Your task to perform on an android device: manage bookmarks in the chrome app Image 0: 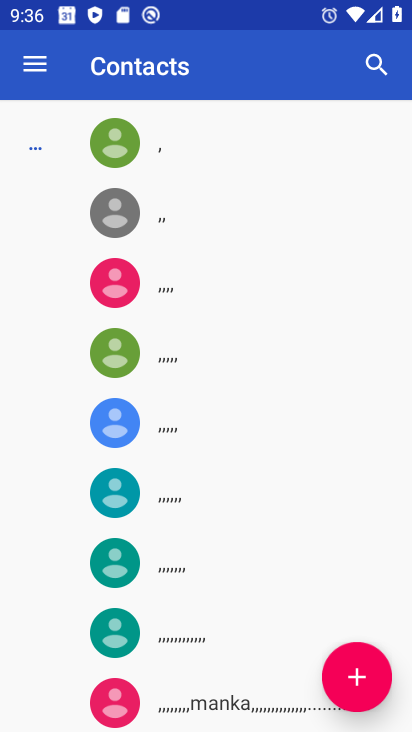
Step 0: press home button
Your task to perform on an android device: manage bookmarks in the chrome app Image 1: 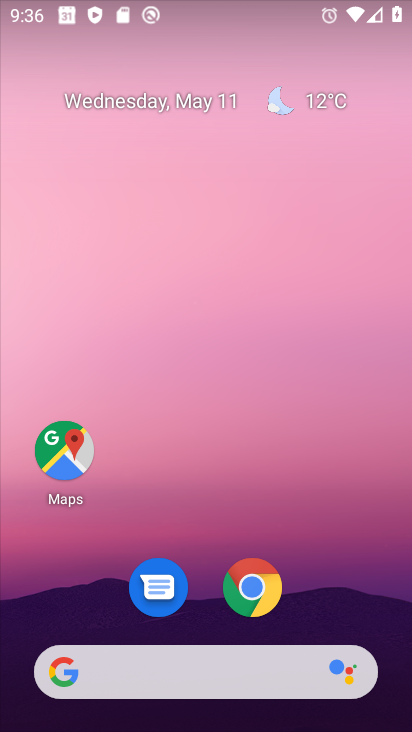
Step 1: click (258, 595)
Your task to perform on an android device: manage bookmarks in the chrome app Image 2: 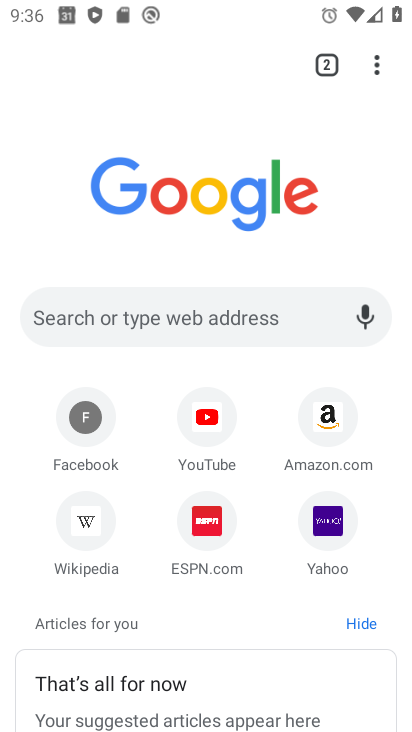
Step 2: drag from (379, 63) to (126, 263)
Your task to perform on an android device: manage bookmarks in the chrome app Image 3: 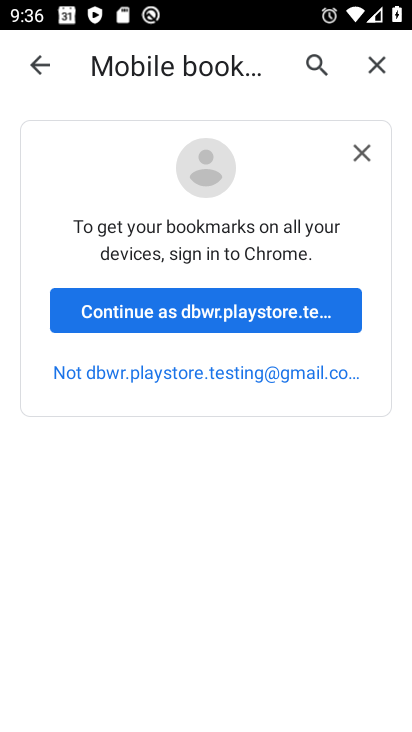
Step 3: click (141, 325)
Your task to perform on an android device: manage bookmarks in the chrome app Image 4: 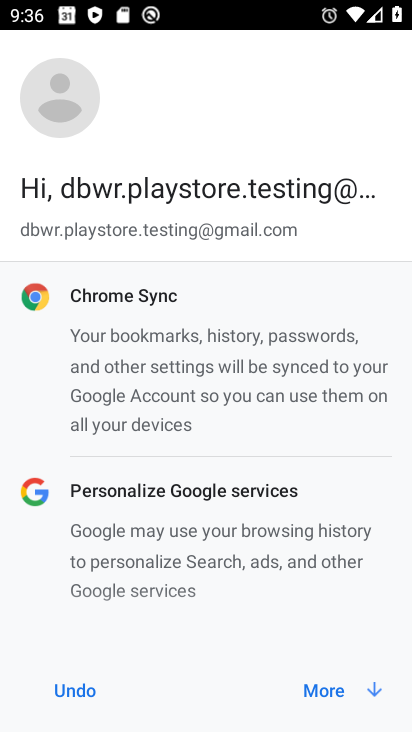
Step 4: click (323, 703)
Your task to perform on an android device: manage bookmarks in the chrome app Image 5: 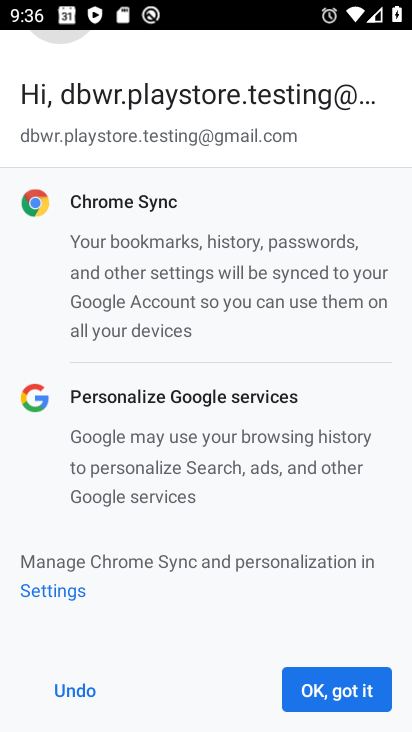
Step 5: click (323, 703)
Your task to perform on an android device: manage bookmarks in the chrome app Image 6: 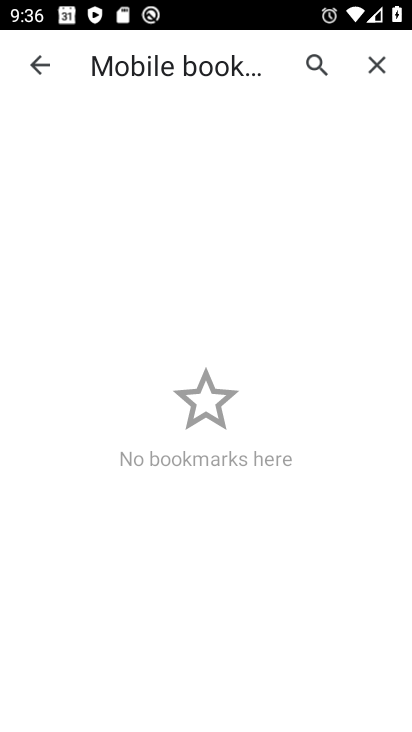
Step 6: drag from (302, 301) to (300, 430)
Your task to perform on an android device: manage bookmarks in the chrome app Image 7: 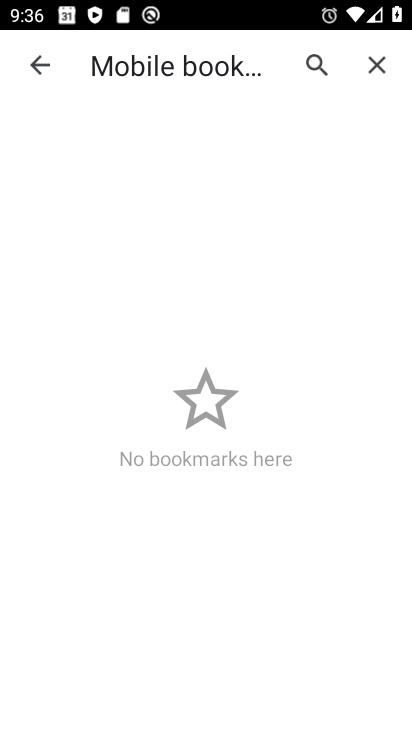
Step 7: click (300, 426)
Your task to perform on an android device: manage bookmarks in the chrome app Image 8: 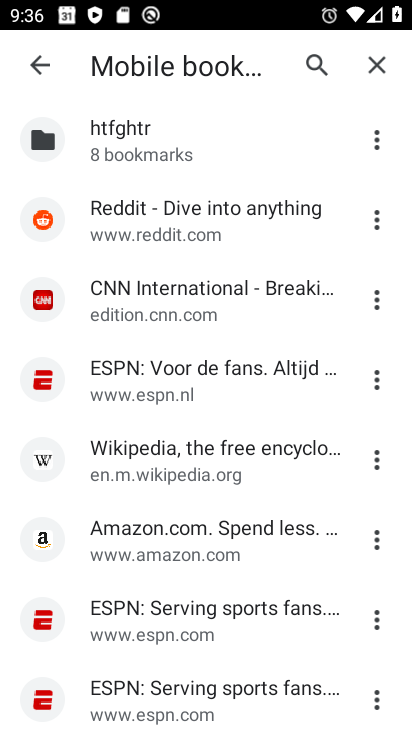
Step 8: drag from (243, 439) to (252, 251)
Your task to perform on an android device: manage bookmarks in the chrome app Image 9: 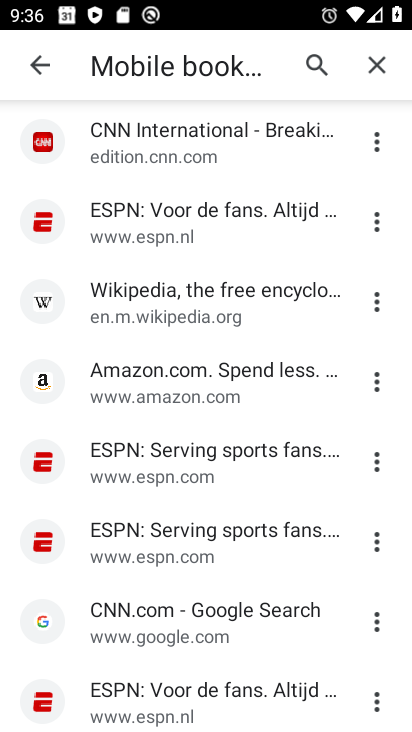
Step 9: click (377, 537)
Your task to perform on an android device: manage bookmarks in the chrome app Image 10: 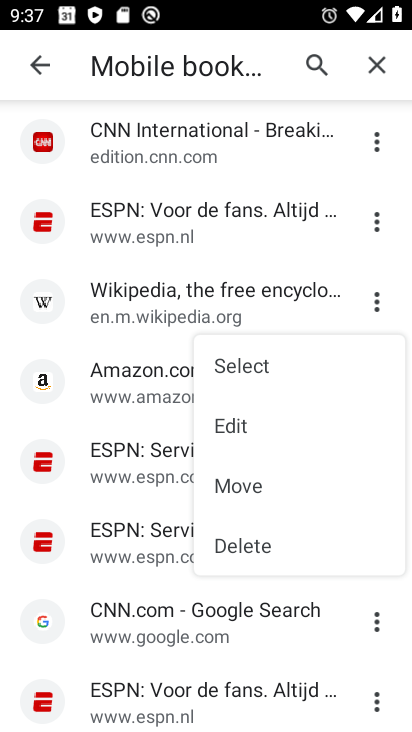
Step 10: click (264, 543)
Your task to perform on an android device: manage bookmarks in the chrome app Image 11: 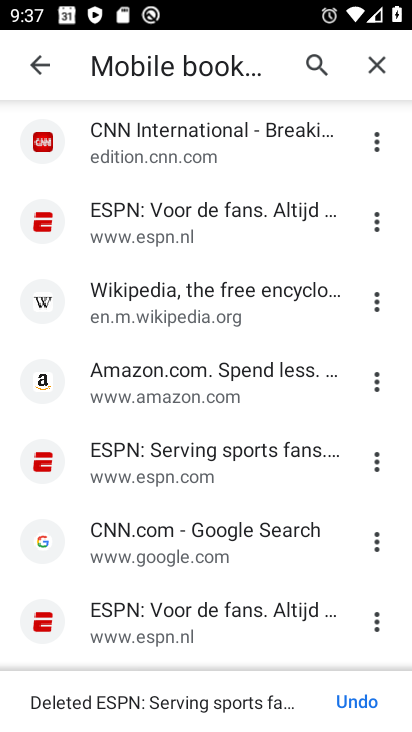
Step 11: task complete